Your task to perform on an android device: change notifications settings Image 0: 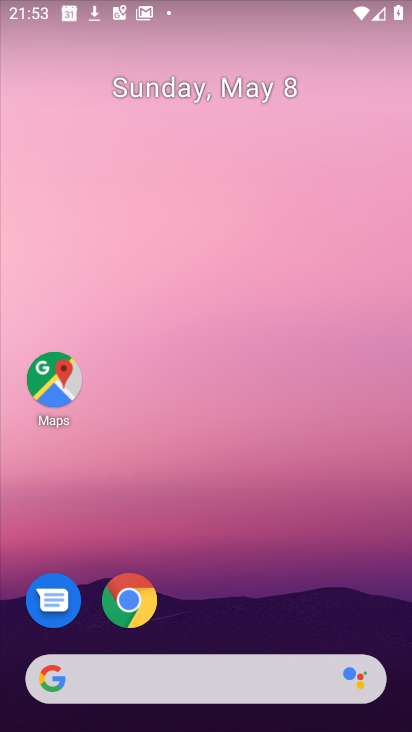
Step 0: drag from (289, 692) to (193, 171)
Your task to perform on an android device: change notifications settings Image 1: 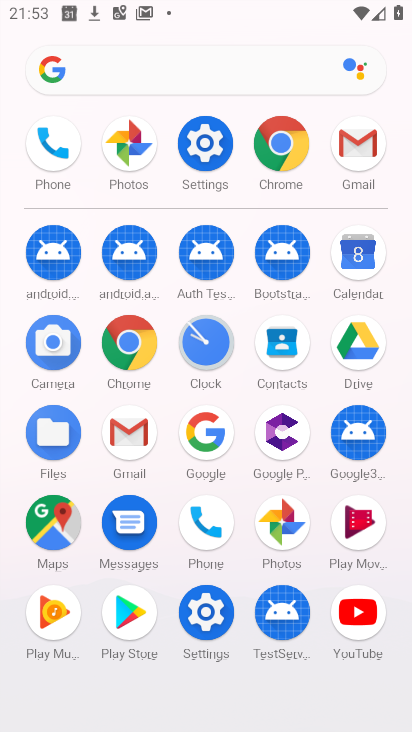
Step 1: click (186, 153)
Your task to perform on an android device: change notifications settings Image 2: 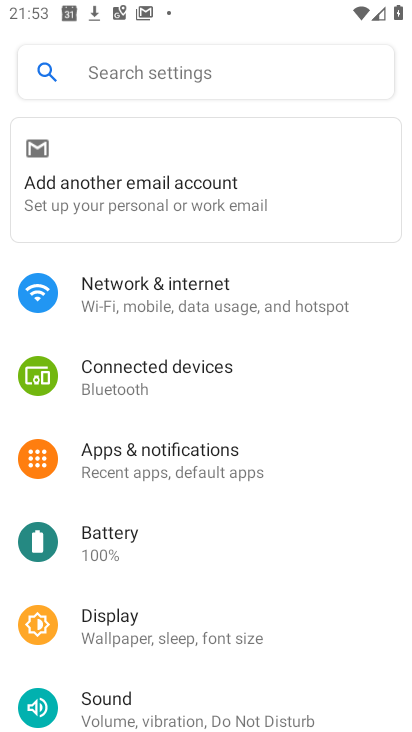
Step 2: click (155, 76)
Your task to perform on an android device: change notifications settings Image 3: 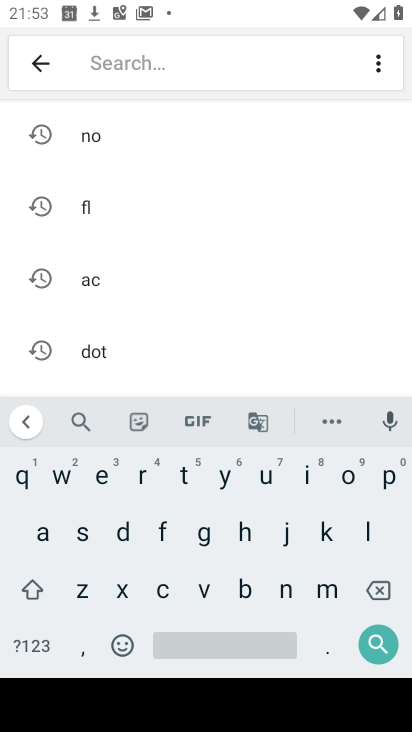
Step 3: click (136, 143)
Your task to perform on an android device: change notifications settings Image 4: 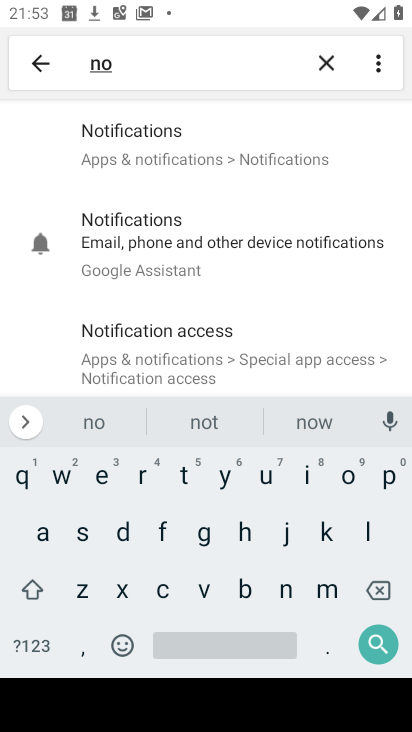
Step 4: click (128, 157)
Your task to perform on an android device: change notifications settings Image 5: 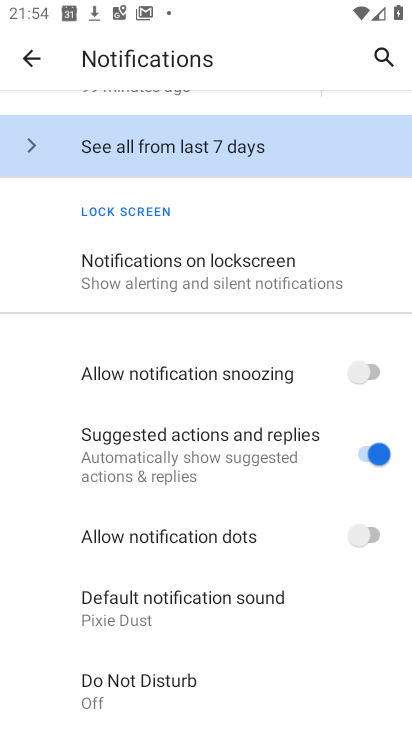
Step 5: click (192, 287)
Your task to perform on an android device: change notifications settings Image 6: 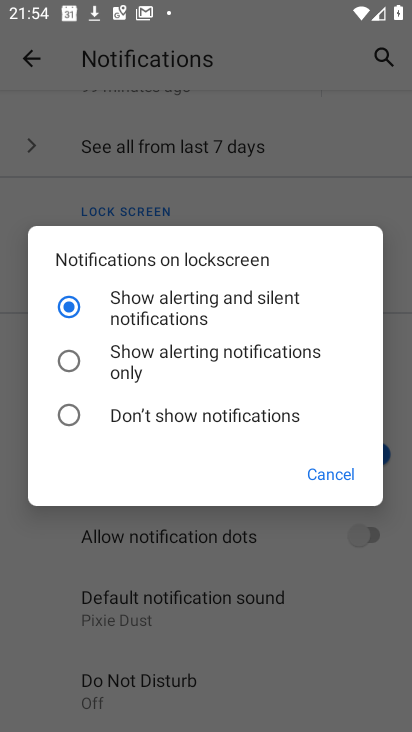
Step 6: task complete